Your task to perform on an android device: Open Google Chrome and open the bookmarks view Image 0: 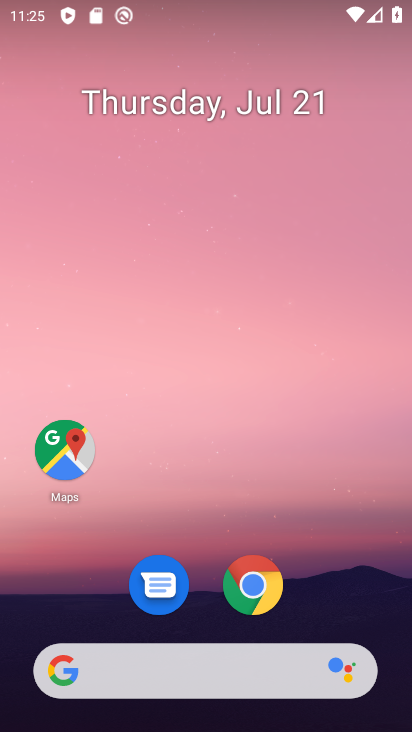
Step 0: press home button
Your task to perform on an android device: Open Google Chrome and open the bookmarks view Image 1: 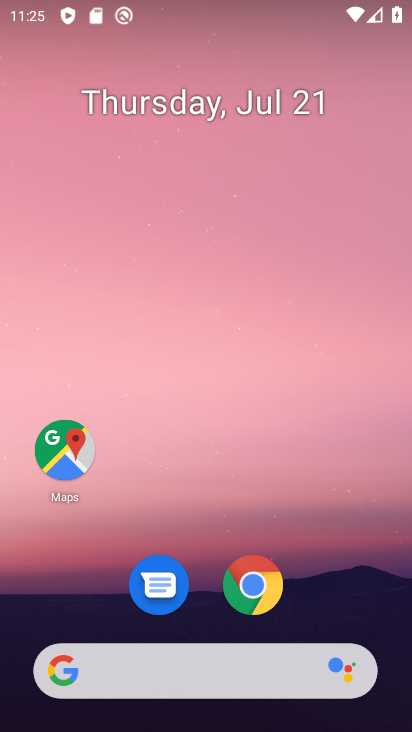
Step 1: drag from (167, 675) to (181, 642)
Your task to perform on an android device: Open Google Chrome and open the bookmarks view Image 2: 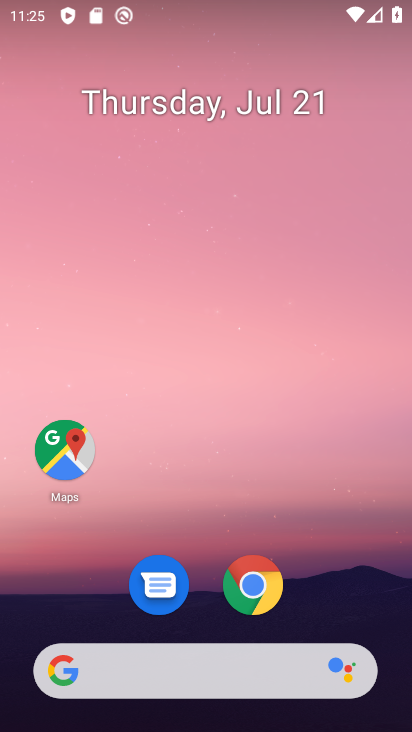
Step 2: click (252, 576)
Your task to perform on an android device: Open Google Chrome and open the bookmarks view Image 3: 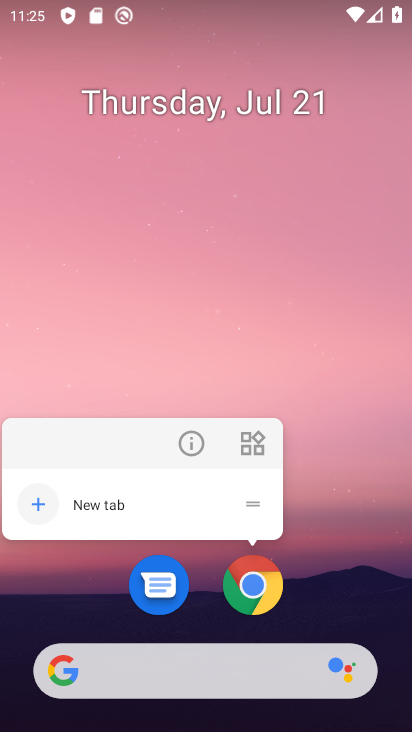
Step 3: click (255, 588)
Your task to perform on an android device: Open Google Chrome and open the bookmarks view Image 4: 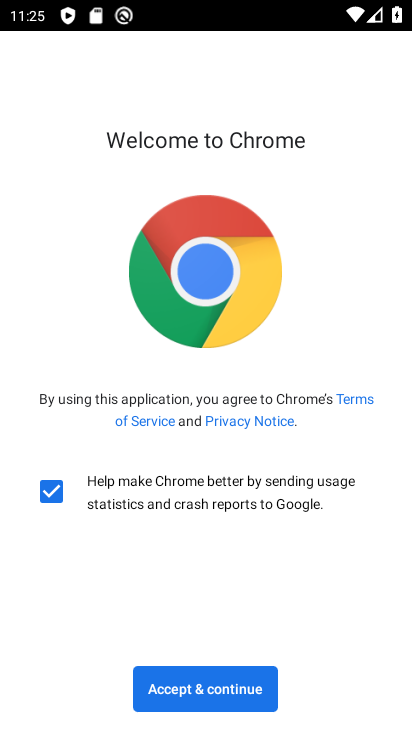
Step 4: click (191, 685)
Your task to perform on an android device: Open Google Chrome and open the bookmarks view Image 5: 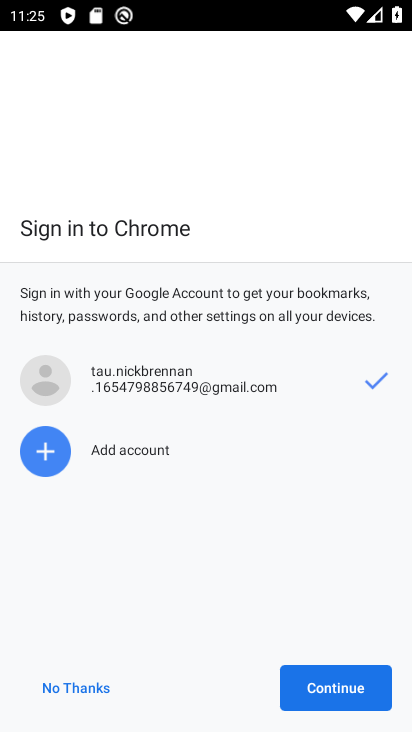
Step 5: click (317, 680)
Your task to perform on an android device: Open Google Chrome and open the bookmarks view Image 6: 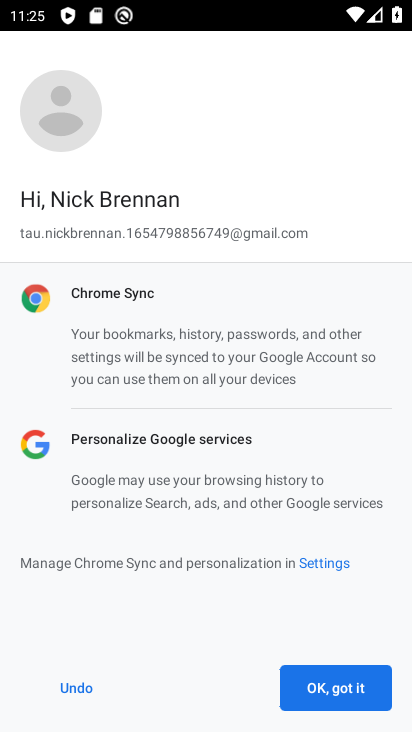
Step 6: click (319, 694)
Your task to perform on an android device: Open Google Chrome and open the bookmarks view Image 7: 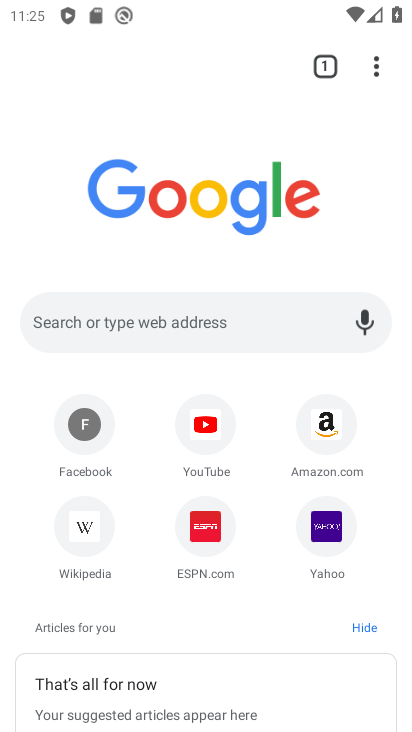
Step 7: task complete